Your task to perform on an android device: show emergency info Image 0: 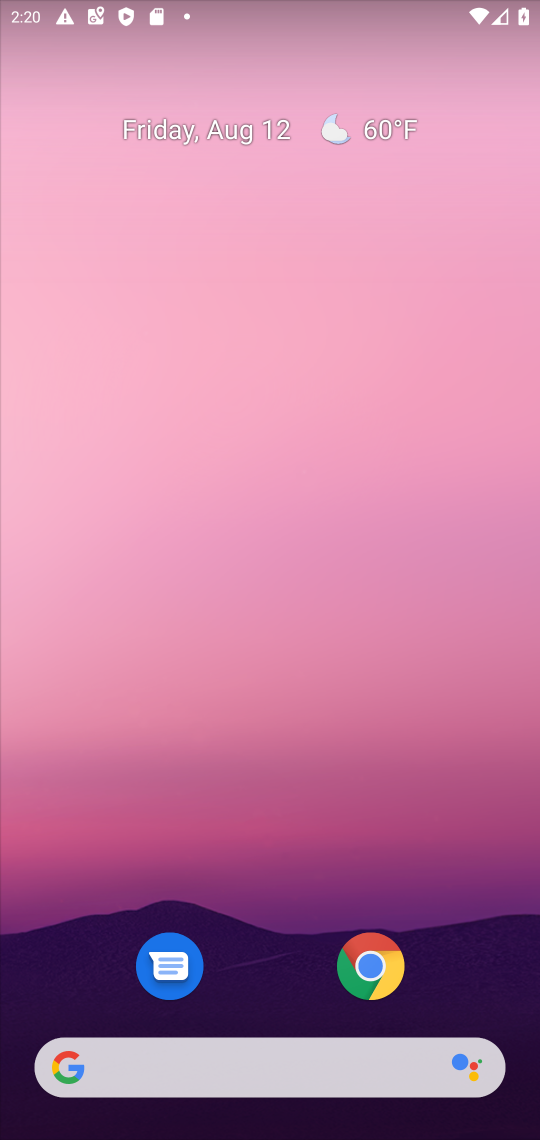
Step 0: drag from (252, 933) to (339, 42)
Your task to perform on an android device: show emergency info Image 1: 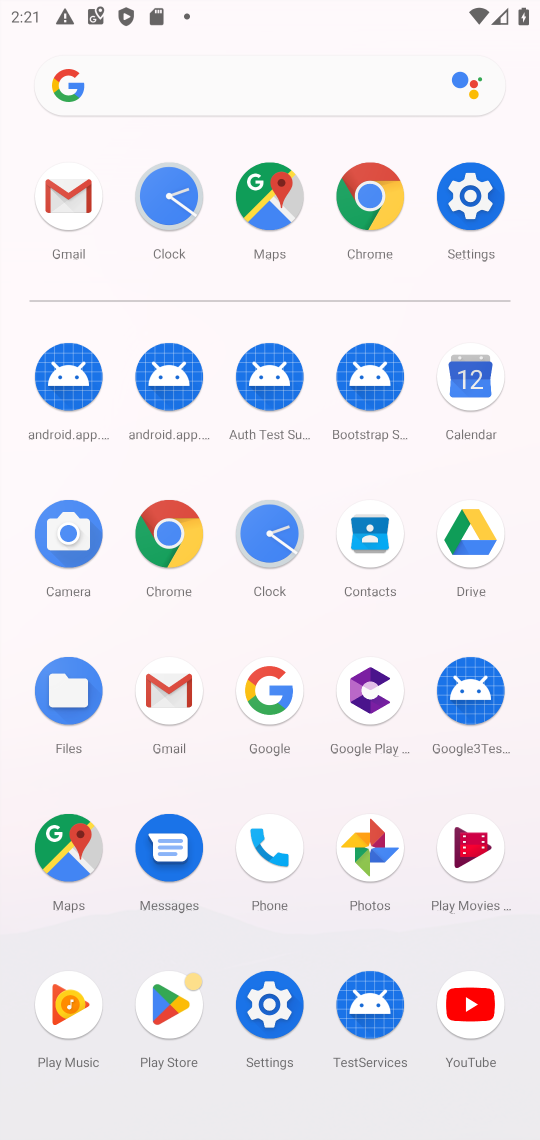
Step 1: click (480, 193)
Your task to perform on an android device: show emergency info Image 2: 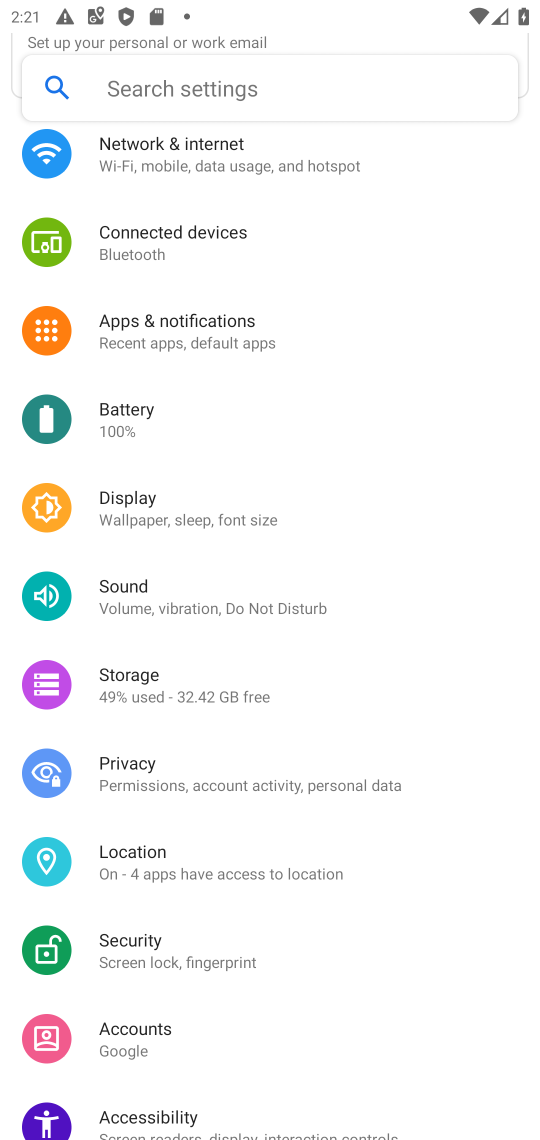
Step 2: drag from (267, 1028) to (404, 81)
Your task to perform on an android device: show emergency info Image 3: 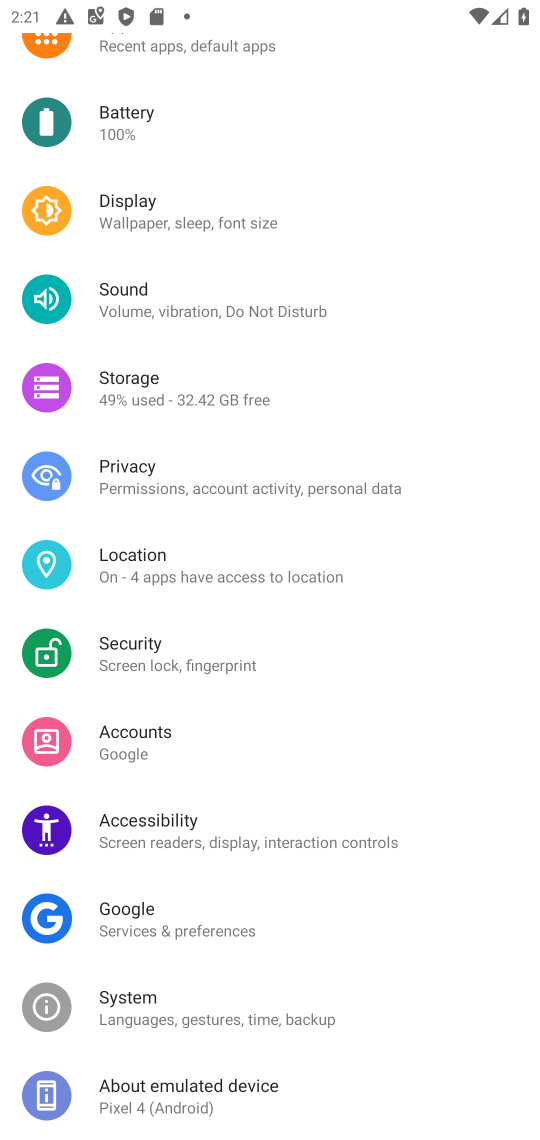
Step 3: click (191, 1084)
Your task to perform on an android device: show emergency info Image 4: 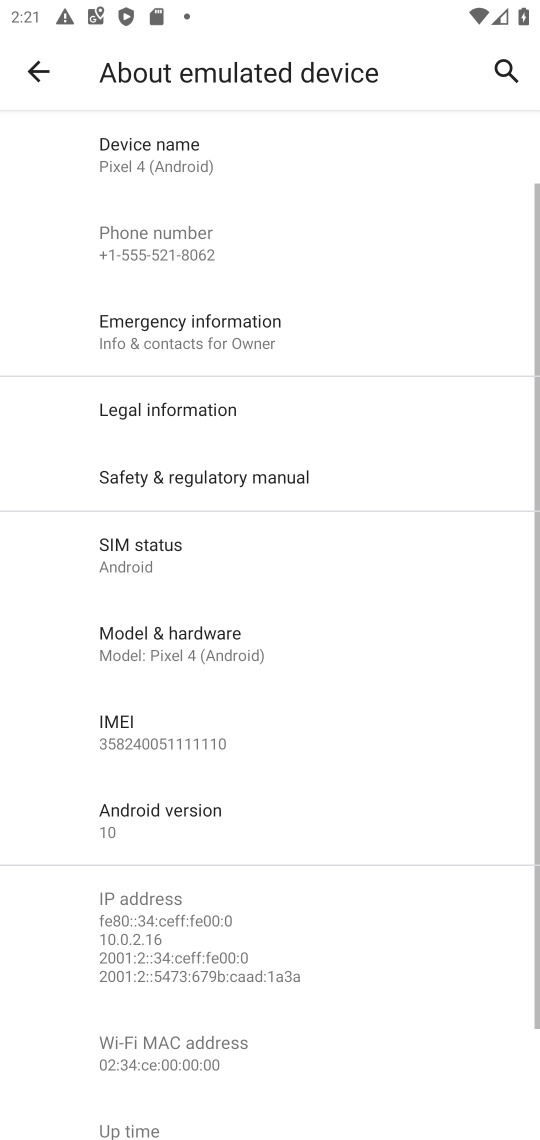
Step 4: click (214, 313)
Your task to perform on an android device: show emergency info Image 5: 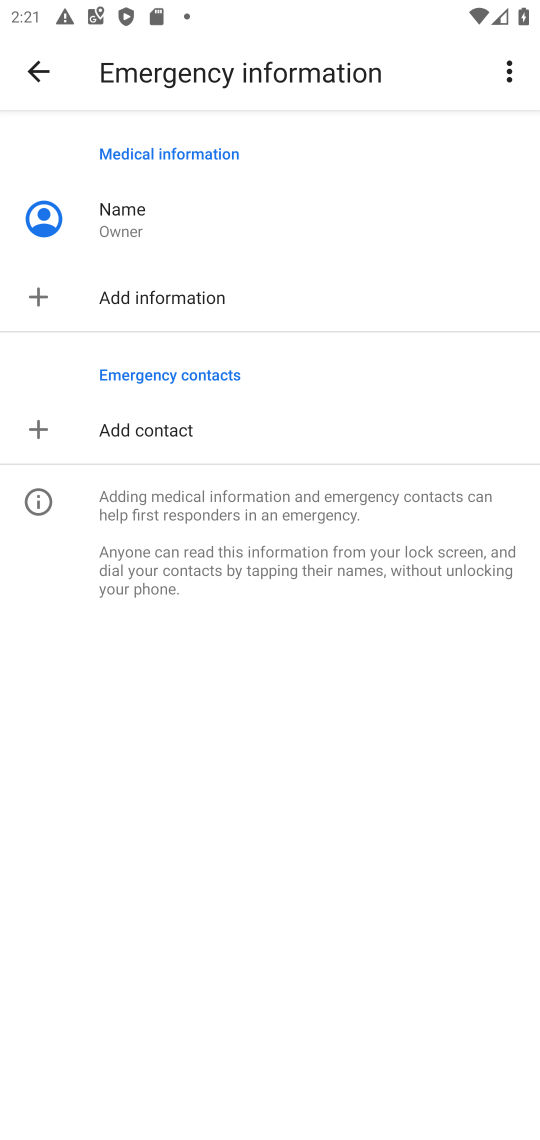
Step 5: task complete